Your task to perform on an android device: Clear the shopping cart on target. Search for "razer kraken" on target, select the first entry, add it to the cart, then select checkout. Image 0: 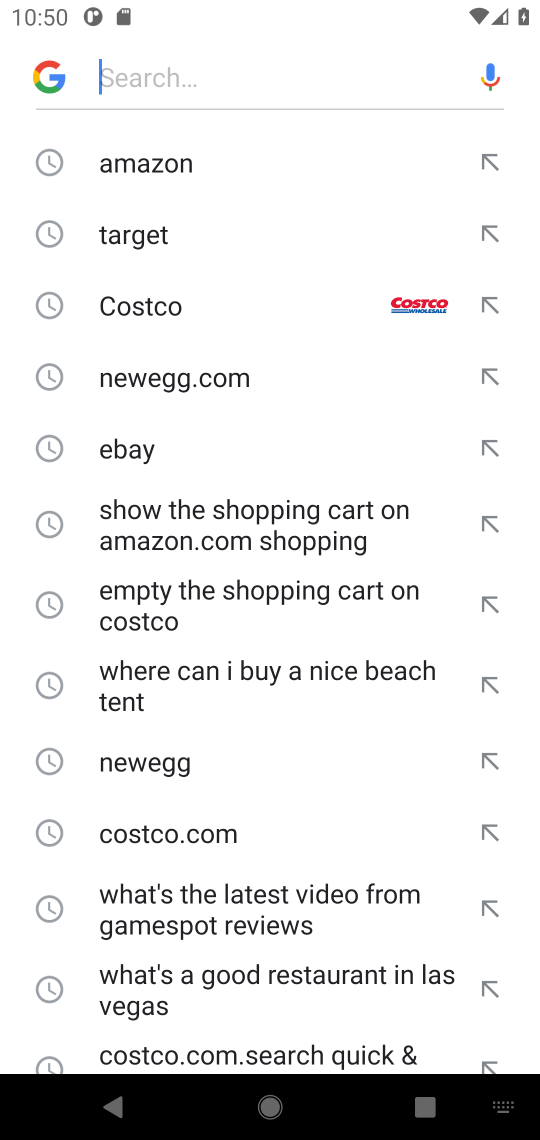
Step 0: click (138, 249)
Your task to perform on an android device: Clear the shopping cart on target. Search for "razer kraken" on target, select the first entry, add it to the cart, then select checkout. Image 1: 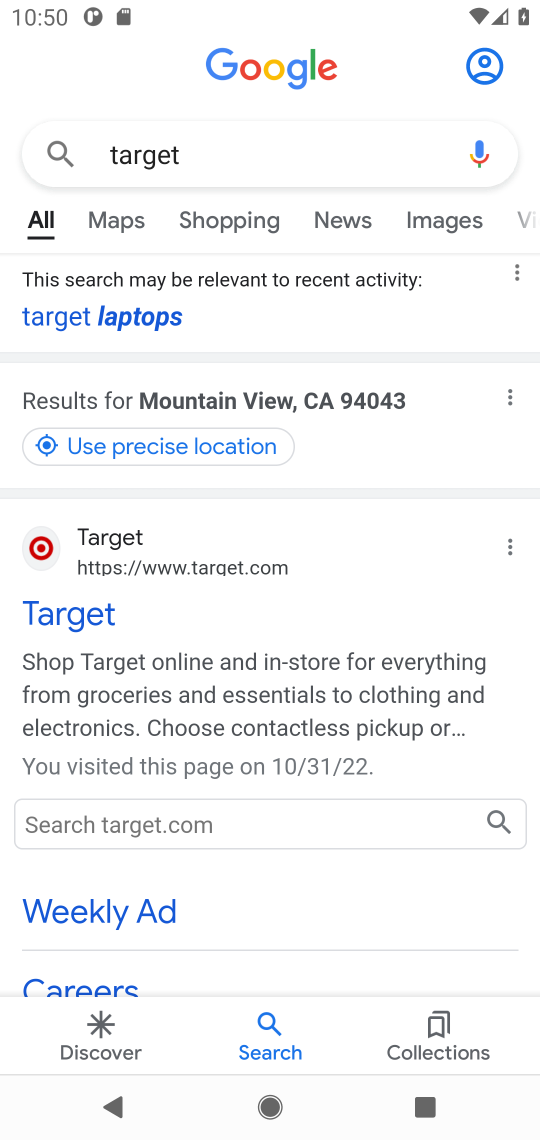
Step 1: click (98, 582)
Your task to perform on an android device: Clear the shopping cart on target. Search for "razer kraken" on target, select the first entry, add it to the cart, then select checkout. Image 2: 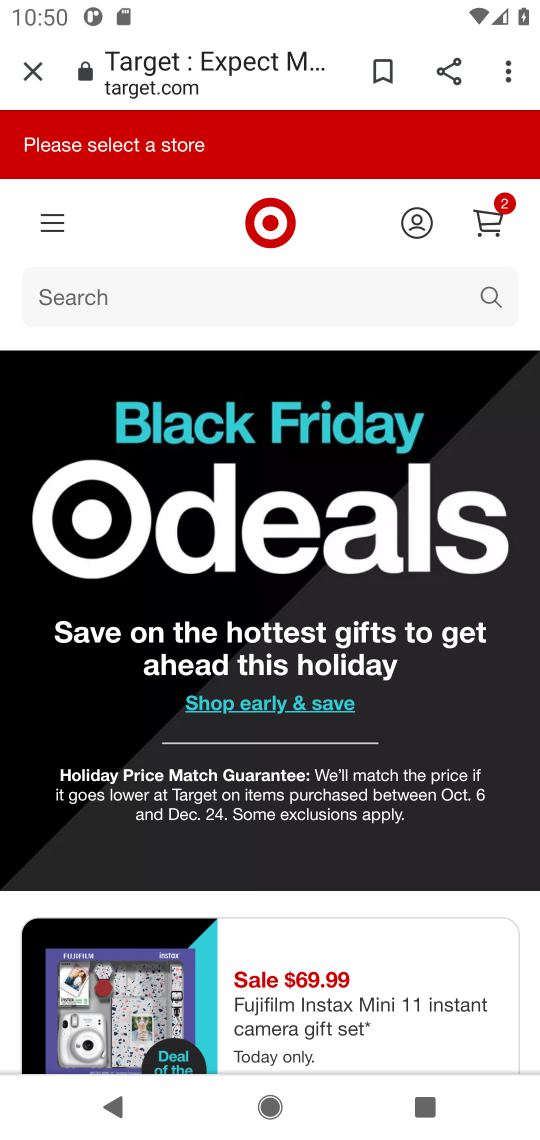
Step 2: click (488, 297)
Your task to perform on an android device: Clear the shopping cart on target. Search for "razer kraken" on target, select the first entry, add it to the cart, then select checkout. Image 3: 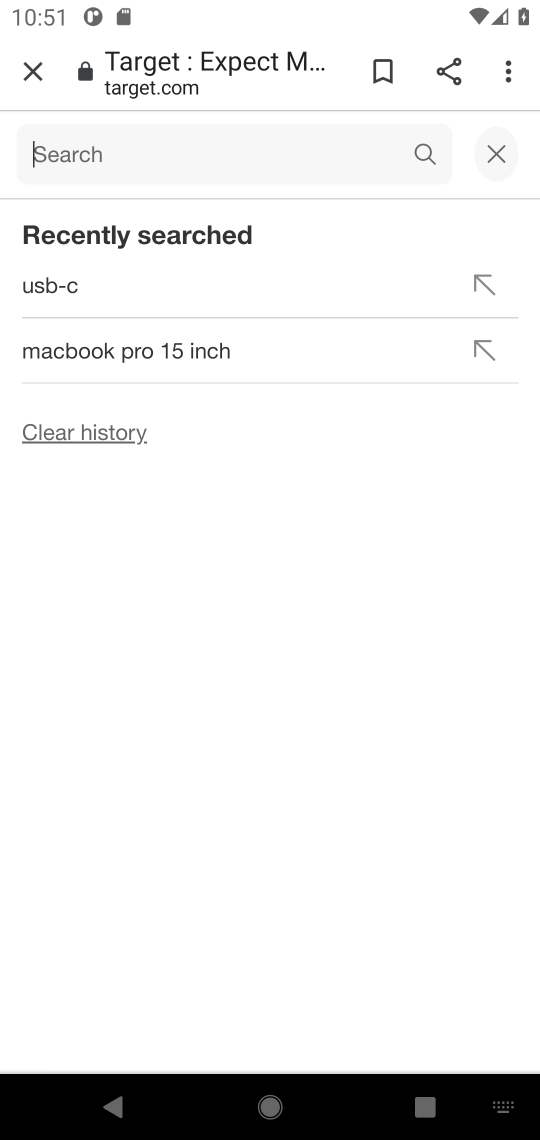
Step 3: press back button
Your task to perform on an android device: Clear the shopping cart on target. Search for "razer kraken" on target, select the first entry, add it to the cart, then select checkout. Image 4: 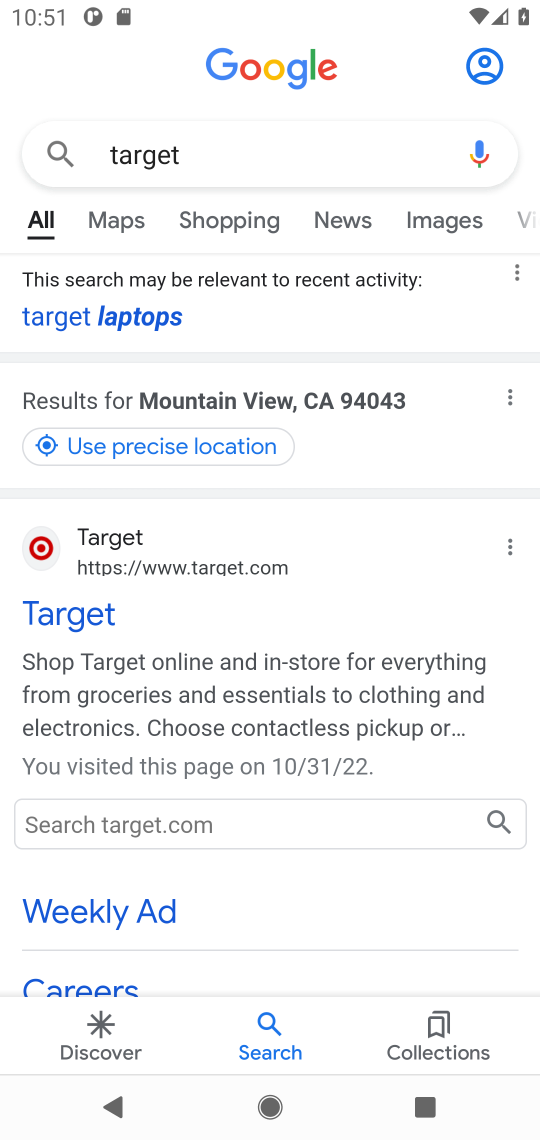
Step 4: click (118, 555)
Your task to perform on an android device: Clear the shopping cart on target. Search for "razer kraken" on target, select the first entry, add it to the cart, then select checkout. Image 5: 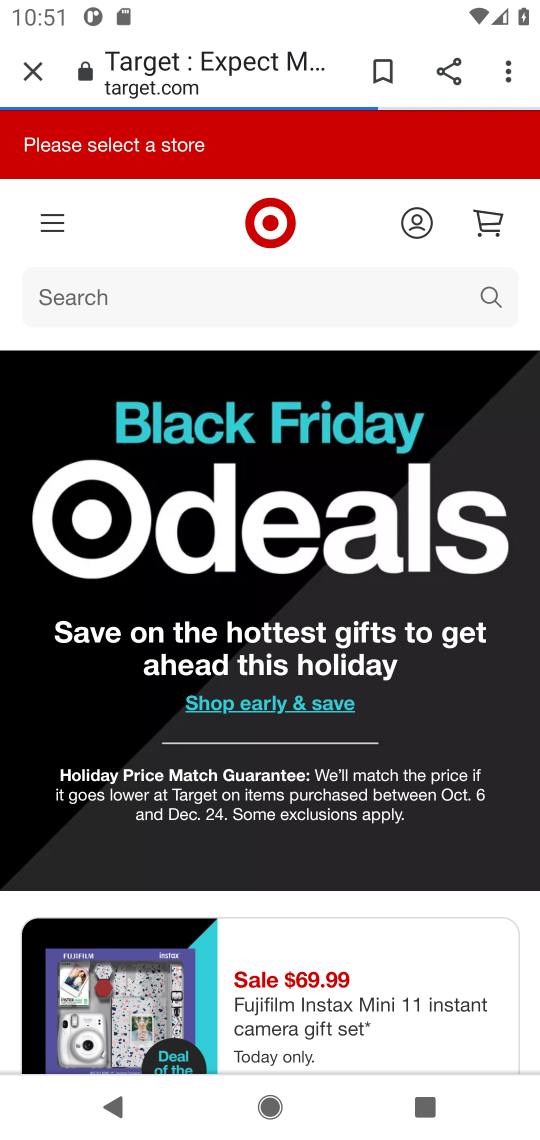
Step 5: click (487, 222)
Your task to perform on an android device: Clear the shopping cart on target. Search for "razer kraken" on target, select the first entry, add it to the cart, then select checkout. Image 6: 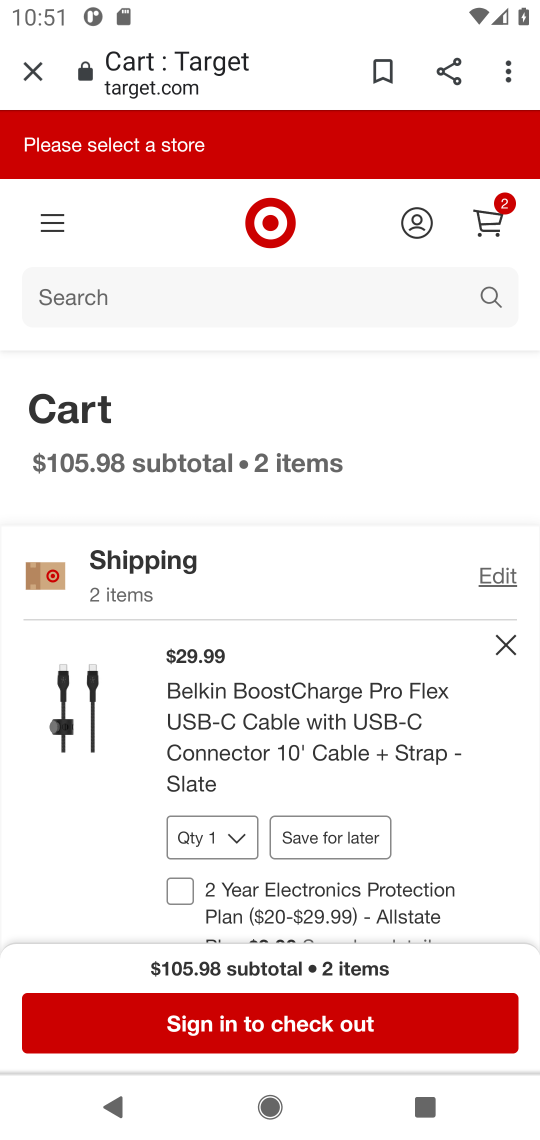
Step 6: drag from (253, 682) to (272, 481)
Your task to perform on an android device: Clear the shopping cart on target. Search for "razer kraken" on target, select the first entry, add it to the cart, then select checkout. Image 7: 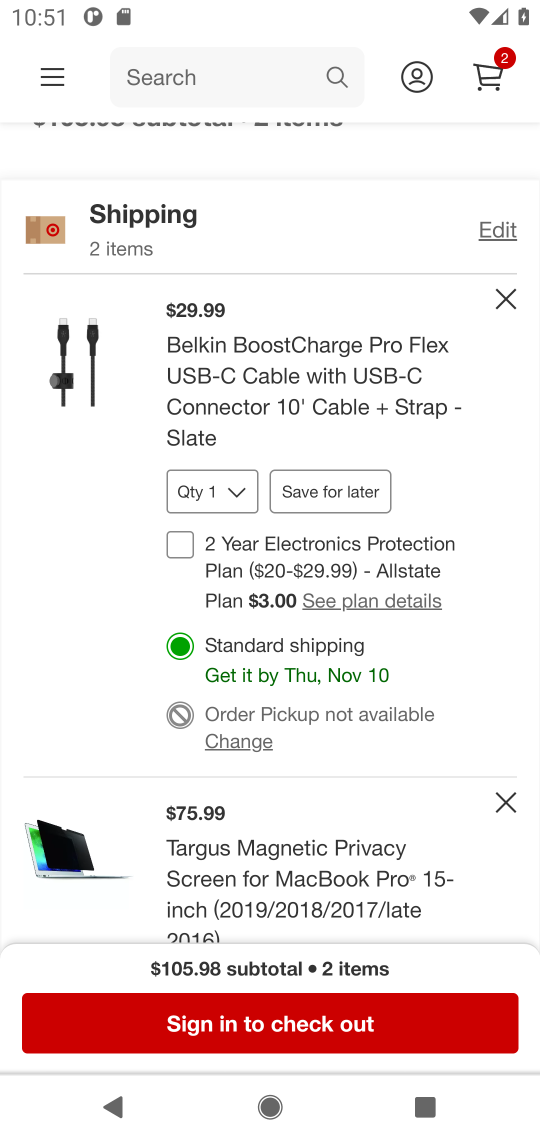
Step 7: click (508, 307)
Your task to perform on an android device: Clear the shopping cart on target. Search for "razer kraken" on target, select the first entry, add it to the cart, then select checkout. Image 8: 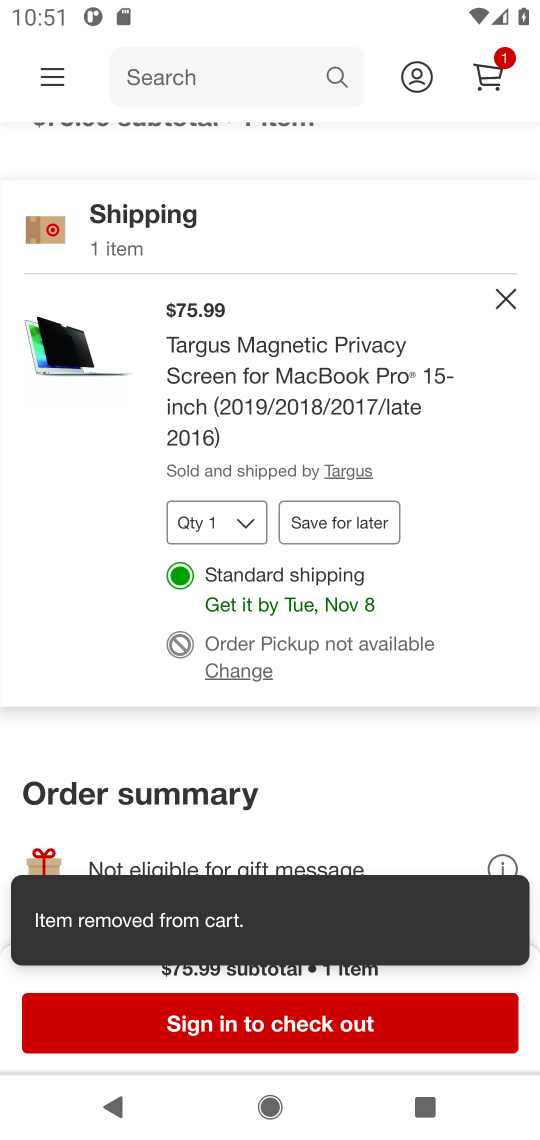
Step 8: click (508, 307)
Your task to perform on an android device: Clear the shopping cart on target. Search for "razer kraken" on target, select the first entry, add it to the cart, then select checkout. Image 9: 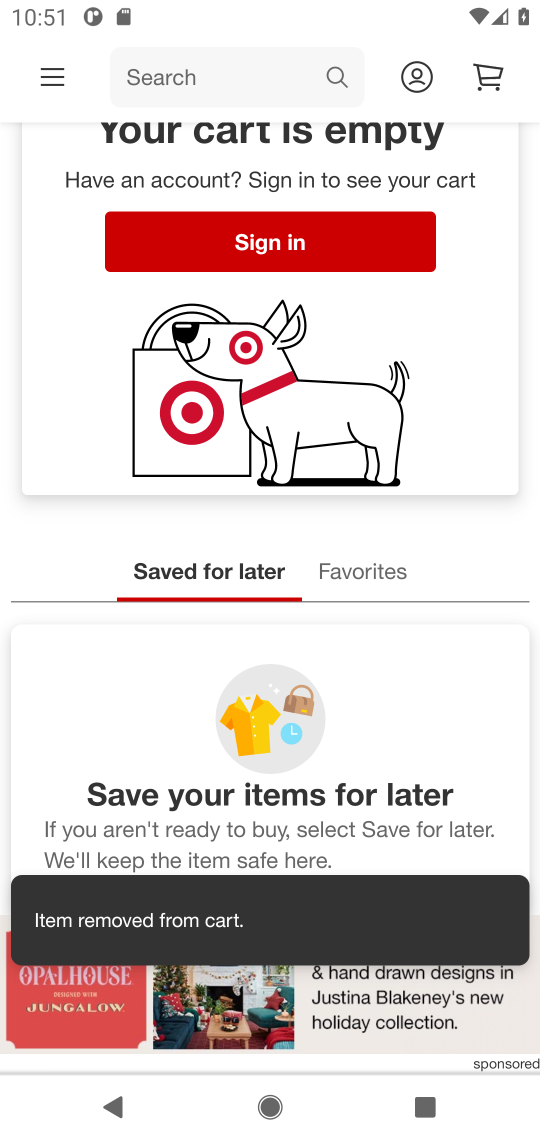
Step 9: drag from (486, 338) to (495, 684)
Your task to perform on an android device: Clear the shopping cart on target. Search for "razer kraken" on target, select the first entry, add it to the cart, then select checkout. Image 10: 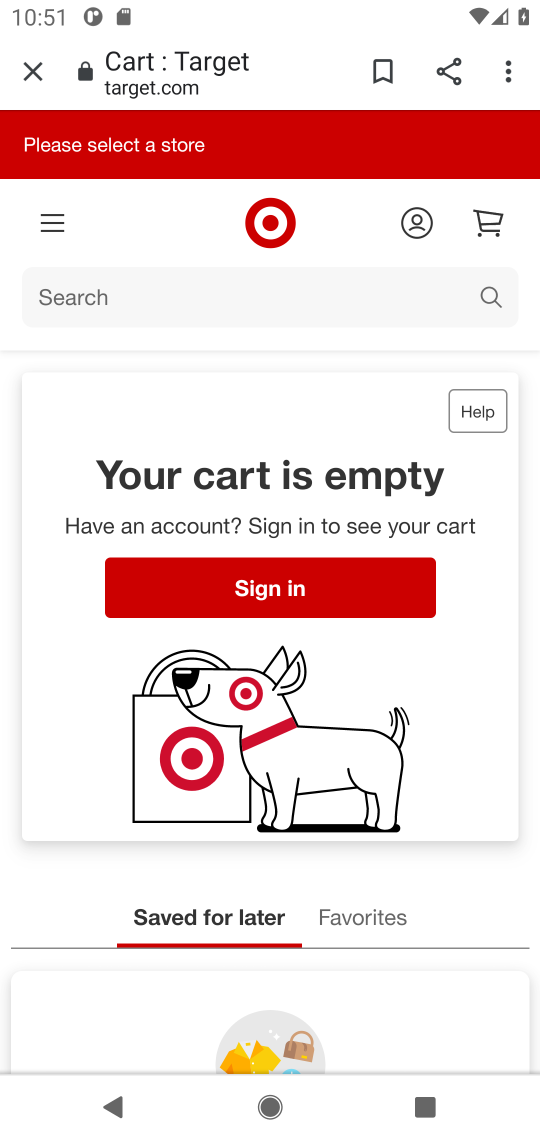
Step 10: click (478, 296)
Your task to perform on an android device: Clear the shopping cart on target. Search for "razer kraken" on target, select the first entry, add it to the cart, then select checkout. Image 11: 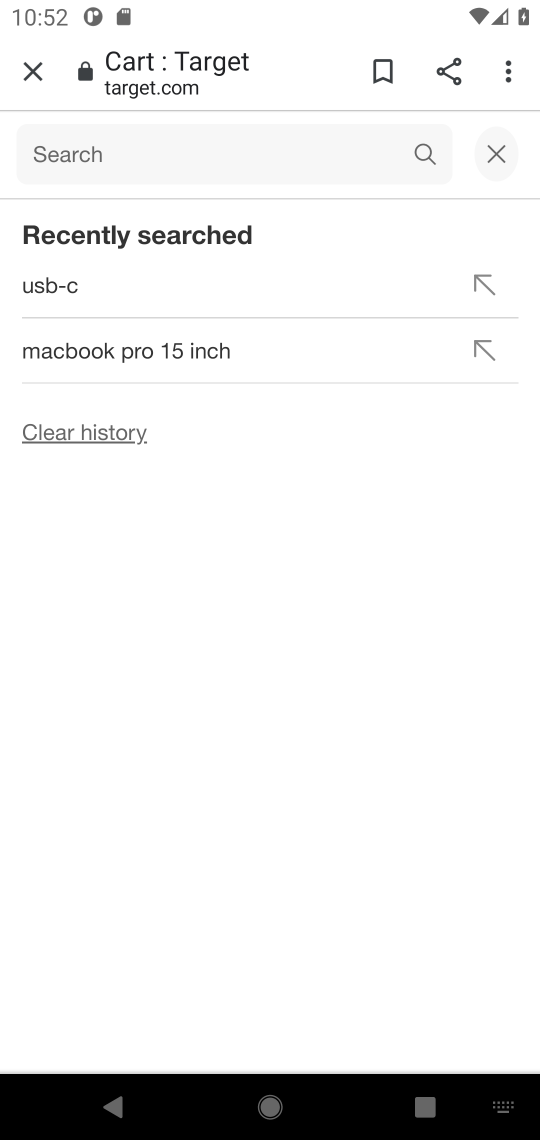
Step 11: type "razer kraken"
Your task to perform on an android device: Clear the shopping cart on target. Search for "razer kraken" on target, select the first entry, add it to the cart, then select checkout. Image 12: 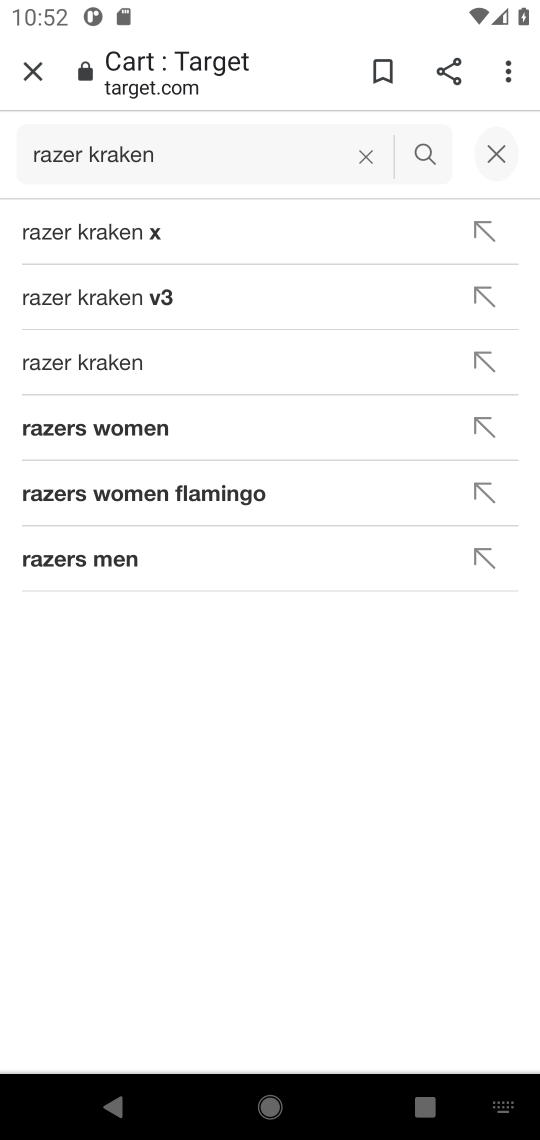
Step 12: click (136, 228)
Your task to perform on an android device: Clear the shopping cart on target. Search for "razer kraken" on target, select the first entry, add it to the cart, then select checkout. Image 13: 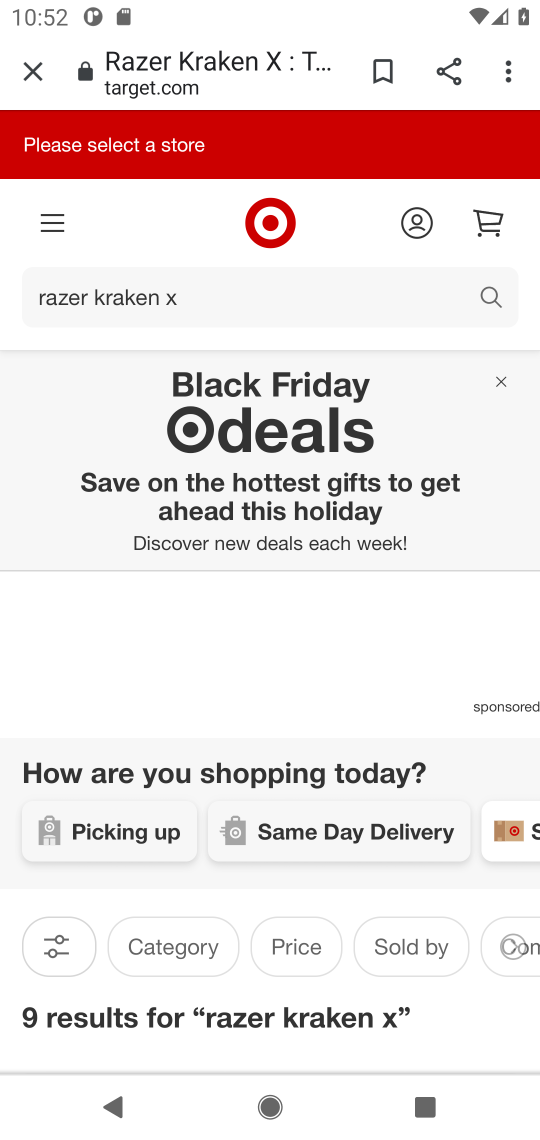
Step 13: drag from (271, 786) to (245, 410)
Your task to perform on an android device: Clear the shopping cart on target. Search for "razer kraken" on target, select the first entry, add it to the cart, then select checkout. Image 14: 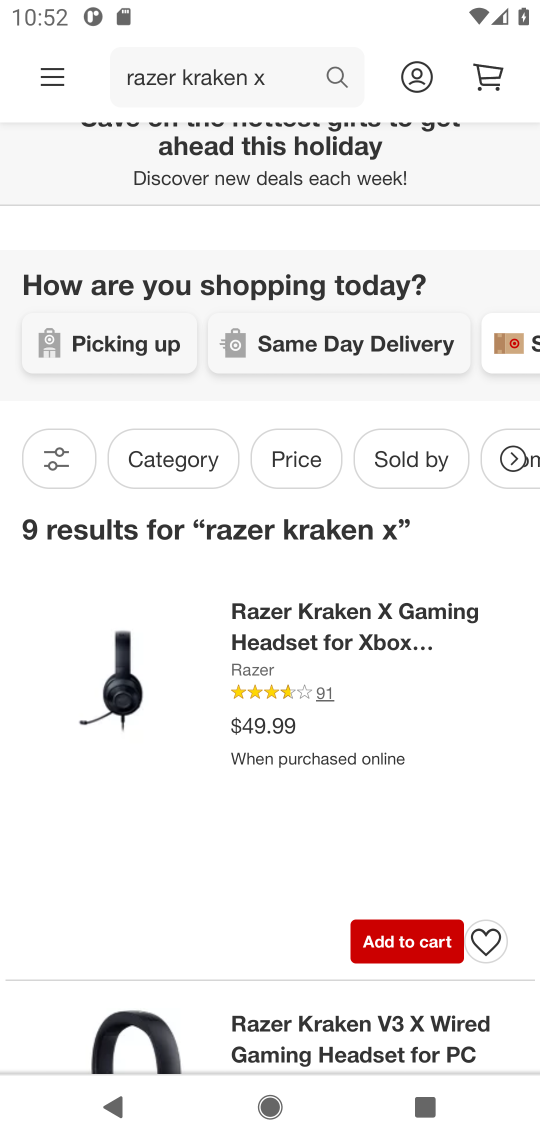
Step 14: click (269, 678)
Your task to perform on an android device: Clear the shopping cart on target. Search for "razer kraken" on target, select the first entry, add it to the cart, then select checkout. Image 15: 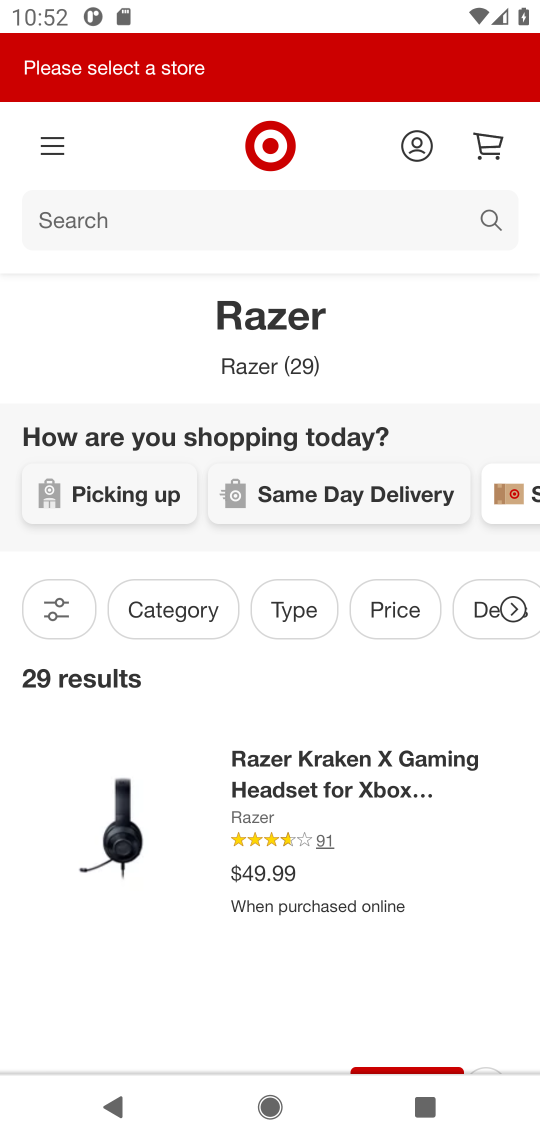
Step 15: drag from (194, 835) to (202, 503)
Your task to perform on an android device: Clear the shopping cart on target. Search for "razer kraken" on target, select the first entry, add it to the cart, then select checkout. Image 16: 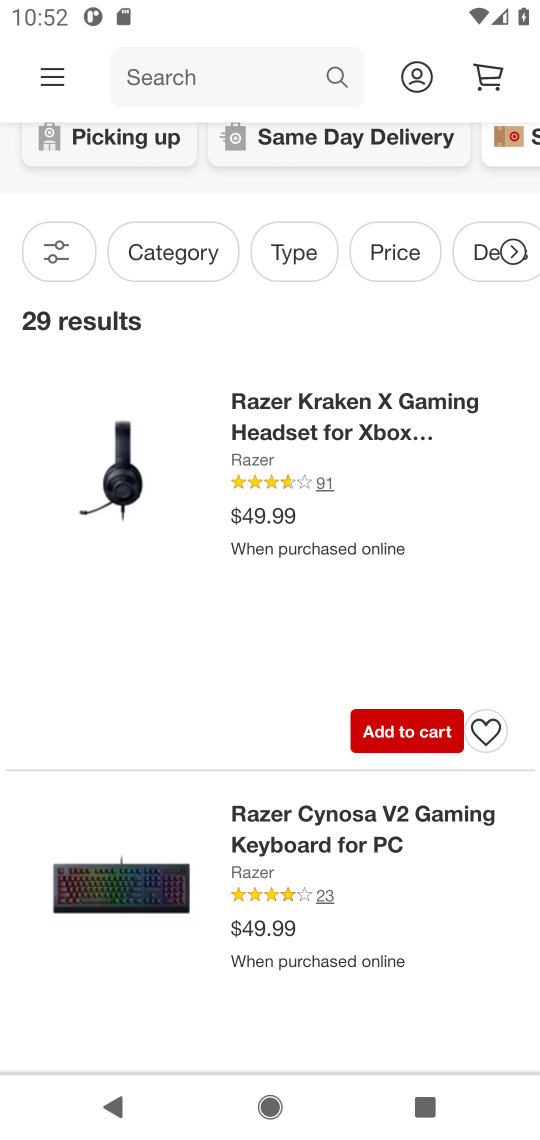
Step 16: click (389, 724)
Your task to perform on an android device: Clear the shopping cart on target. Search for "razer kraken" on target, select the first entry, add it to the cart, then select checkout. Image 17: 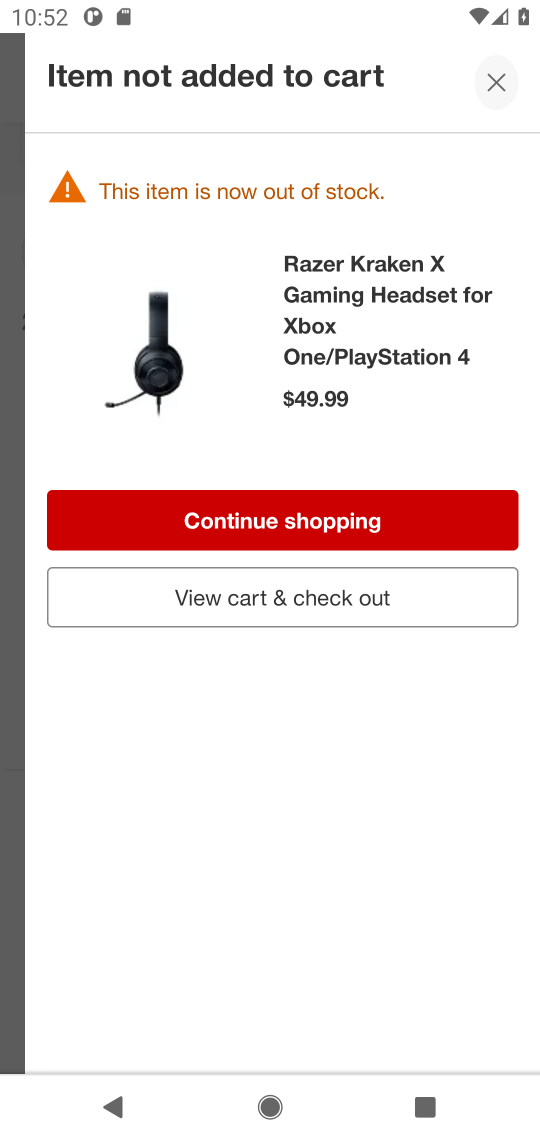
Step 17: click (251, 584)
Your task to perform on an android device: Clear the shopping cart on target. Search for "razer kraken" on target, select the first entry, add it to the cart, then select checkout. Image 18: 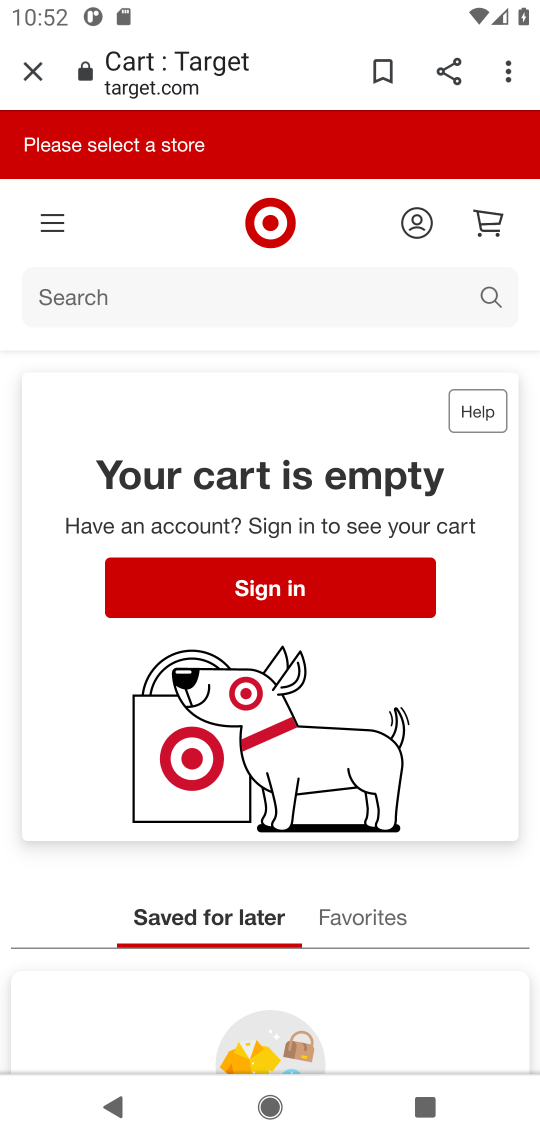
Step 18: click (267, 697)
Your task to perform on an android device: Clear the shopping cart on target. Search for "razer kraken" on target, select the first entry, add it to the cart, then select checkout. Image 19: 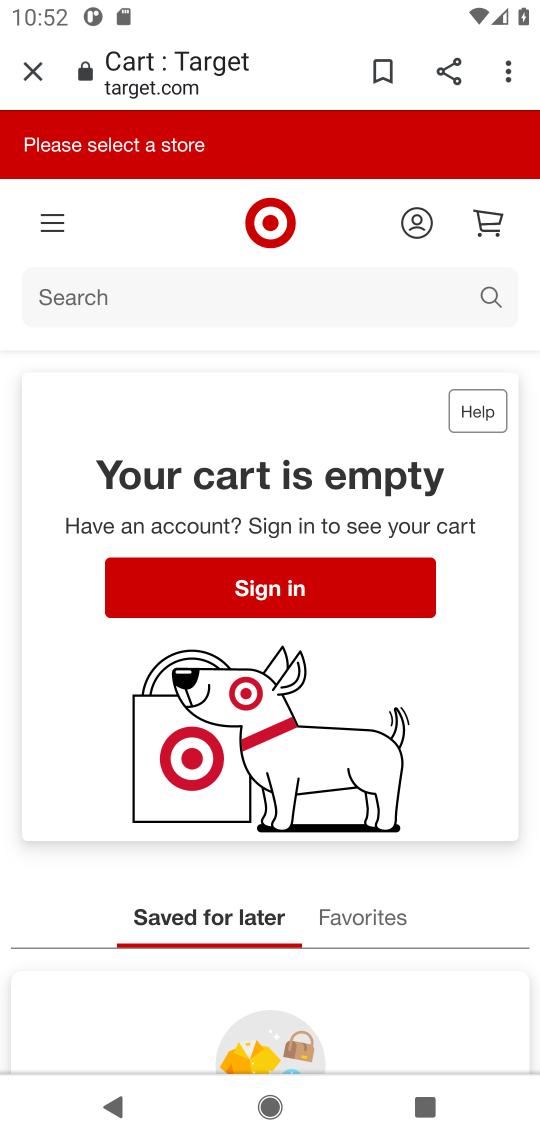
Step 19: click (187, 299)
Your task to perform on an android device: Clear the shopping cart on target. Search for "razer kraken" on target, select the first entry, add it to the cart, then select checkout. Image 20: 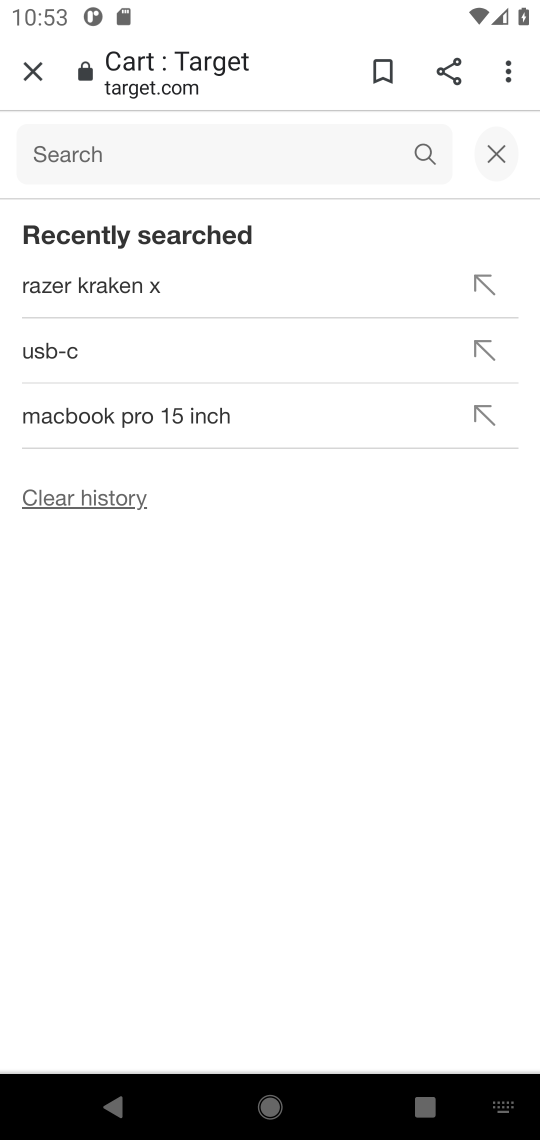
Step 20: click (109, 153)
Your task to perform on an android device: Clear the shopping cart on target. Search for "razer kraken" on target, select the first entry, add it to the cart, then select checkout. Image 21: 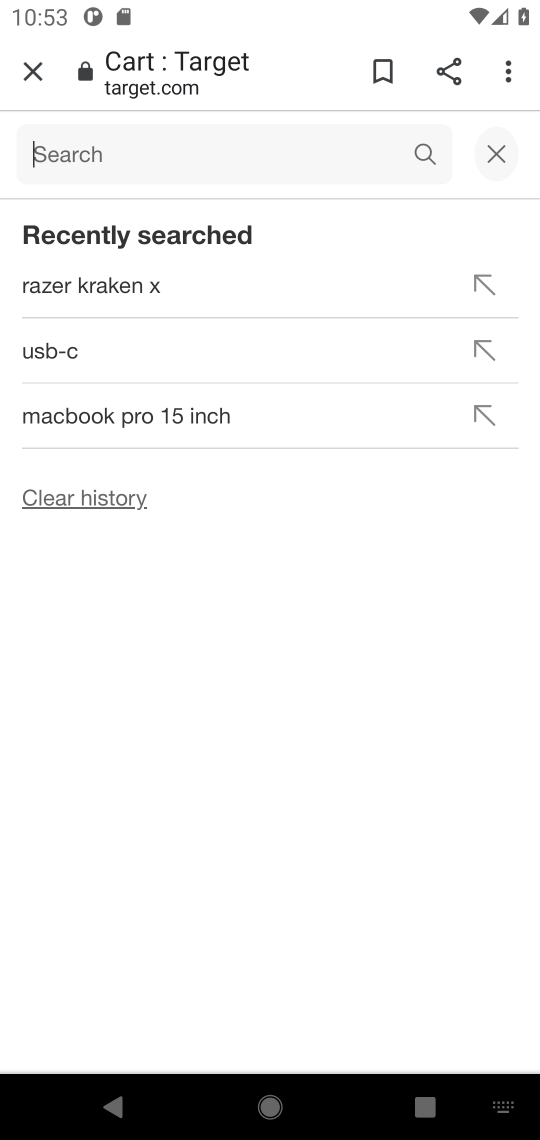
Step 21: type "razer kraken"
Your task to perform on an android device: Clear the shopping cart on target. Search for "razer kraken" on target, select the first entry, add it to the cart, then select checkout. Image 22: 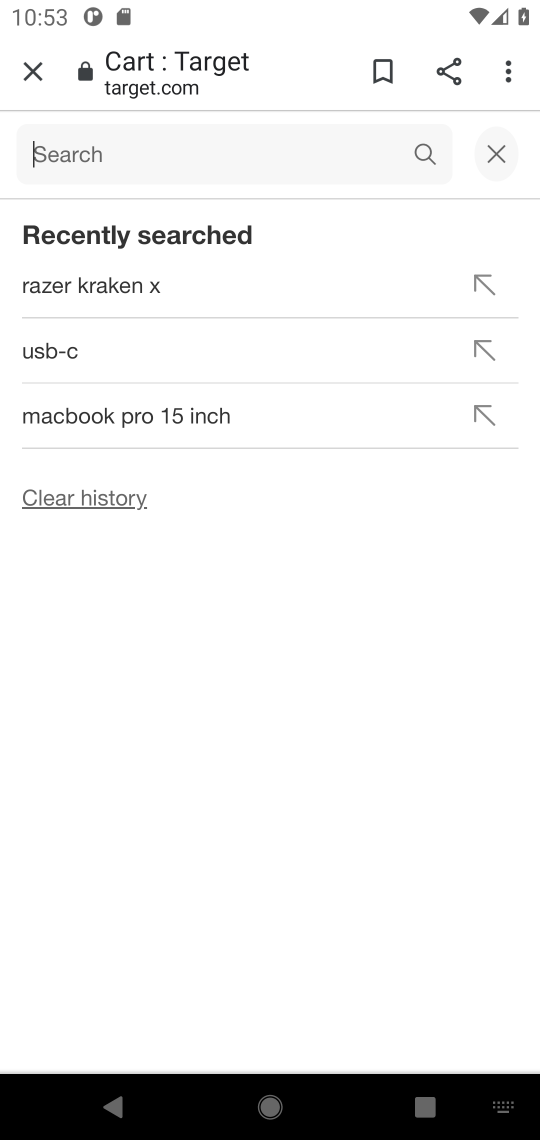
Step 22: click (79, 160)
Your task to perform on an android device: Clear the shopping cart on target. Search for "razer kraken" on target, select the first entry, add it to the cart, then select checkout. Image 23: 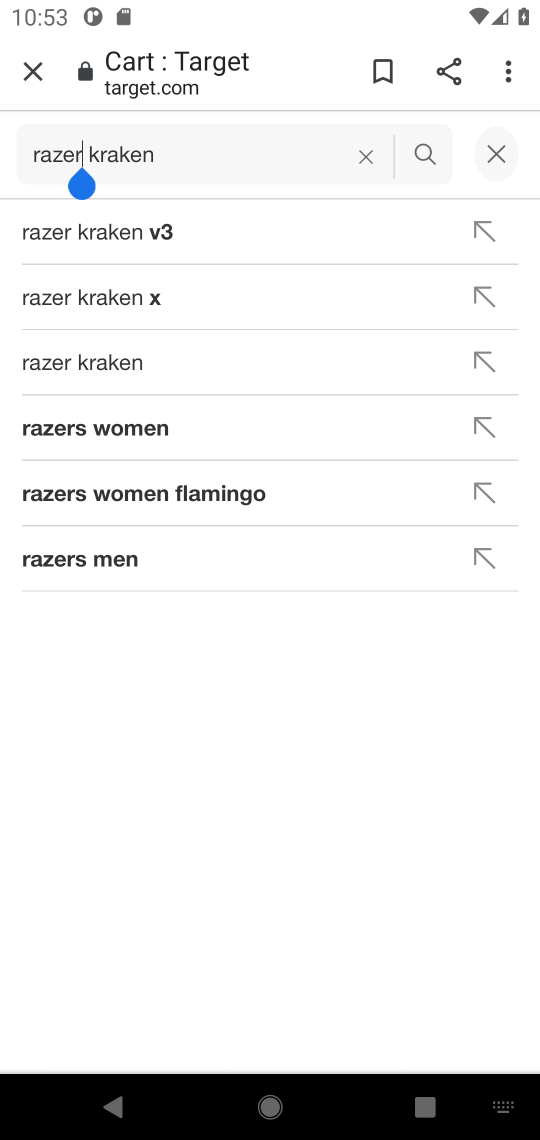
Step 23: click (414, 152)
Your task to perform on an android device: Clear the shopping cart on target. Search for "razer kraken" on target, select the first entry, add it to the cart, then select checkout. Image 24: 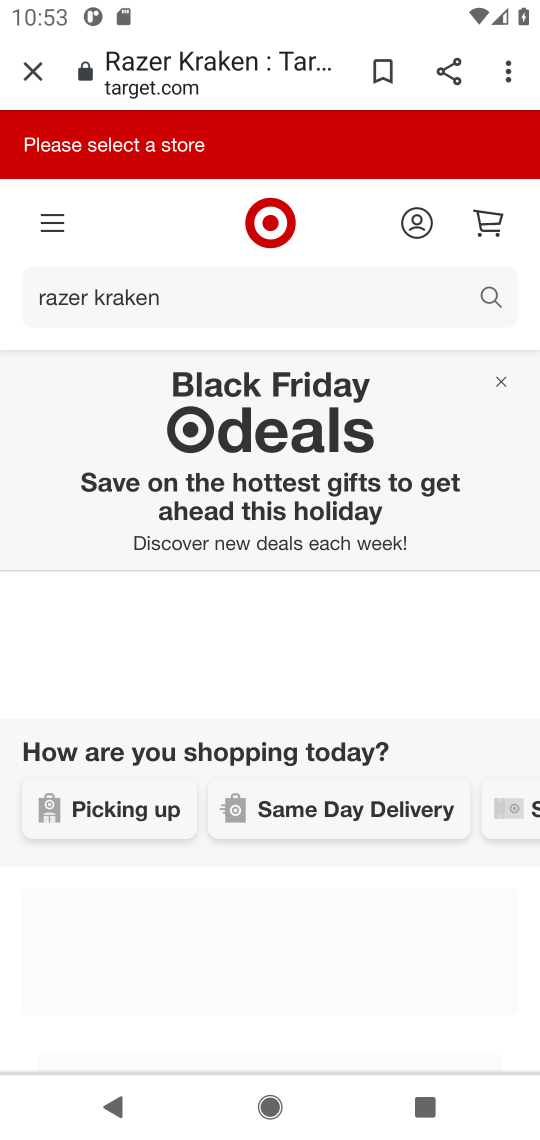
Step 24: drag from (234, 751) to (264, 273)
Your task to perform on an android device: Clear the shopping cart on target. Search for "razer kraken" on target, select the first entry, add it to the cart, then select checkout. Image 25: 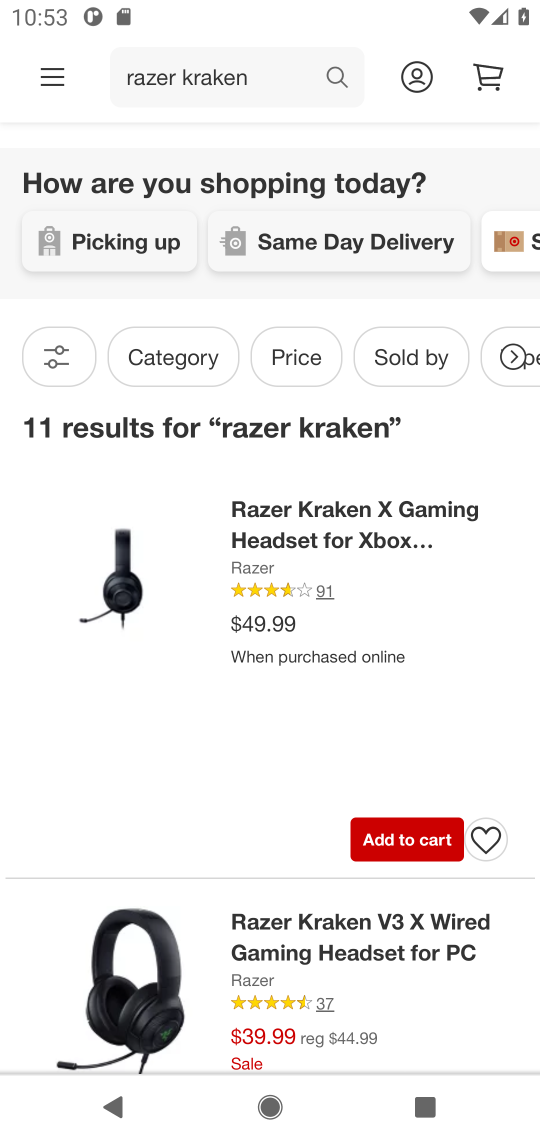
Step 25: drag from (224, 720) to (286, 527)
Your task to perform on an android device: Clear the shopping cart on target. Search for "razer kraken" on target, select the first entry, add it to the cart, then select checkout. Image 26: 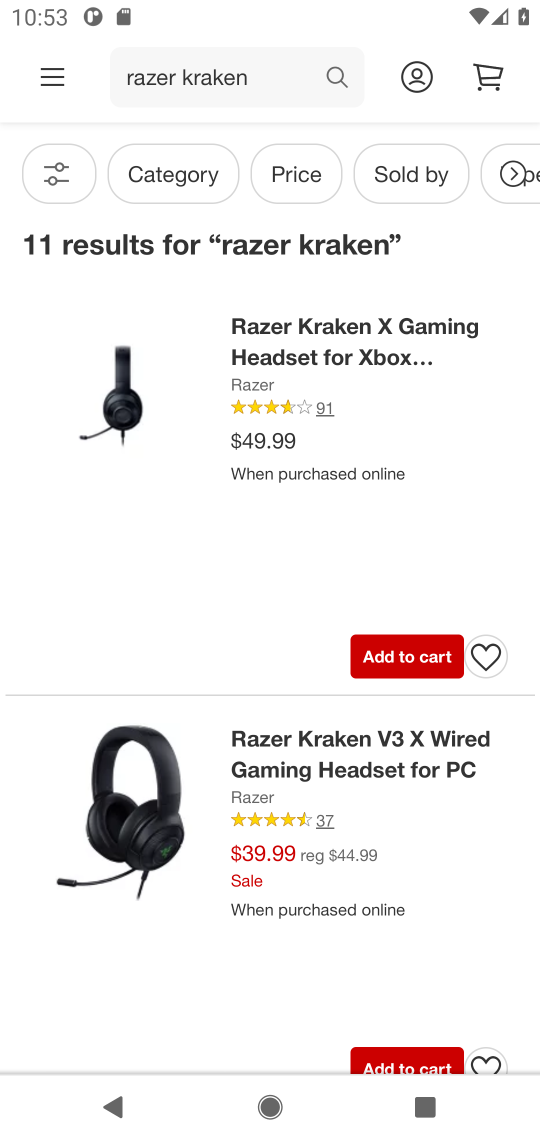
Step 26: click (398, 658)
Your task to perform on an android device: Clear the shopping cart on target. Search for "razer kraken" on target, select the first entry, add it to the cart, then select checkout. Image 27: 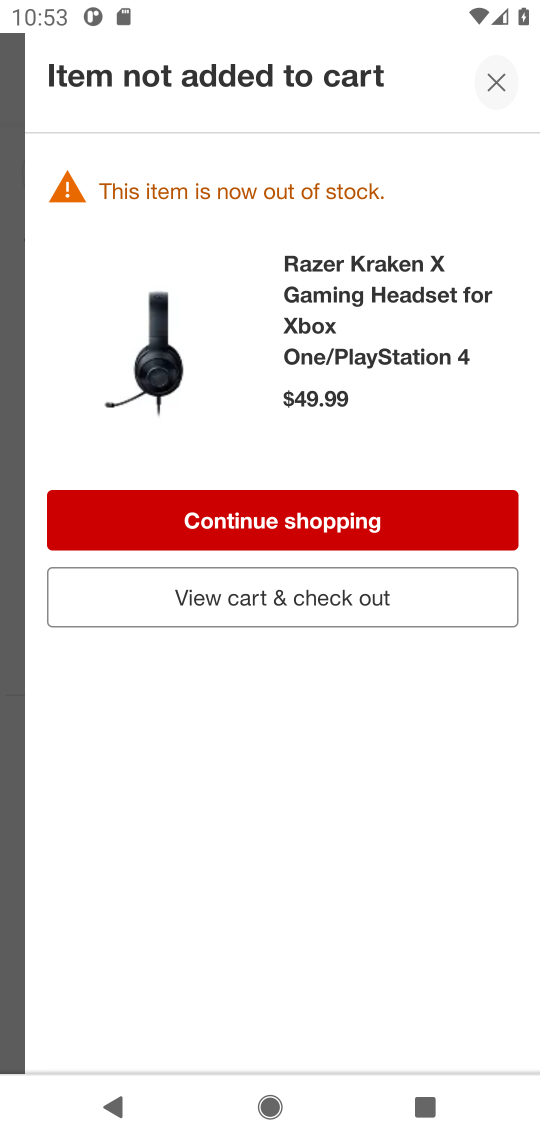
Step 27: click (503, 81)
Your task to perform on an android device: Clear the shopping cart on target. Search for "razer kraken" on target, select the first entry, add it to the cart, then select checkout. Image 28: 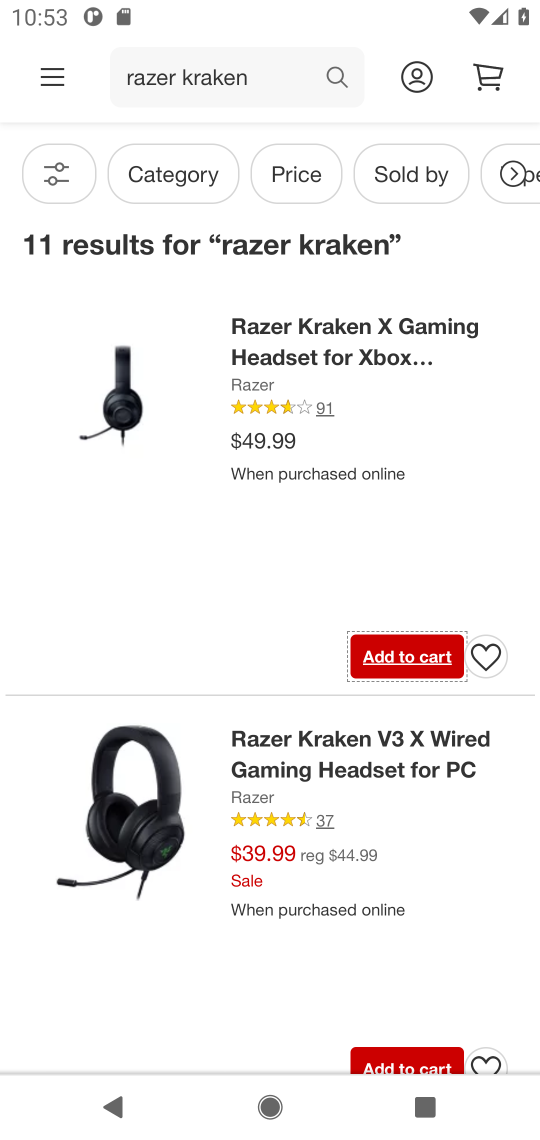
Step 28: drag from (304, 635) to (297, 346)
Your task to perform on an android device: Clear the shopping cart on target. Search for "razer kraken" on target, select the first entry, add it to the cart, then select checkout. Image 29: 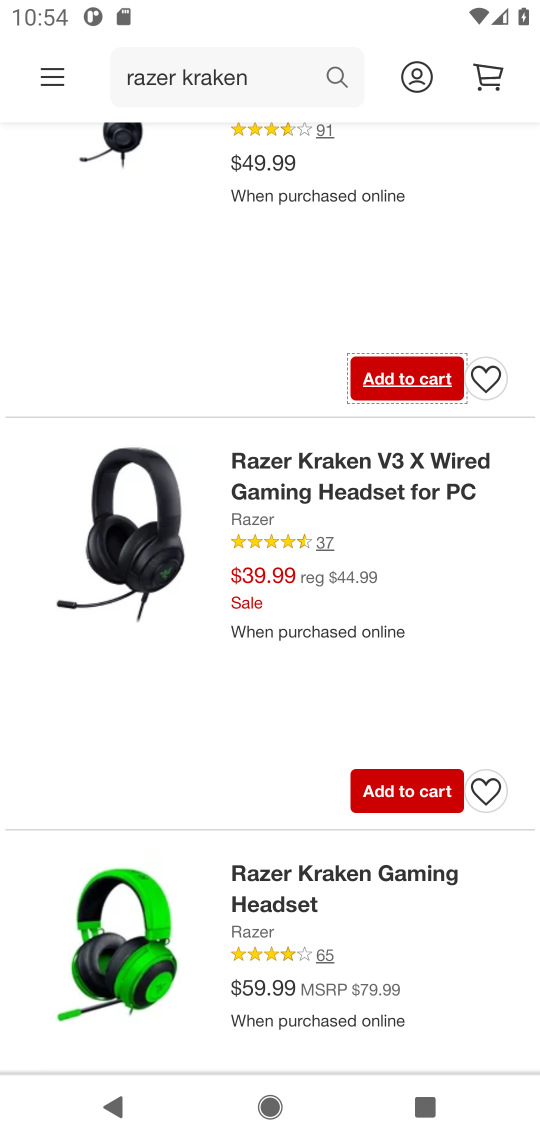
Step 29: click (382, 793)
Your task to perform on an android device: Clear the shopping cart on target. Search for "razer kraken" on target, select the first entry, add it to the cart, then select checkout. Image 30: 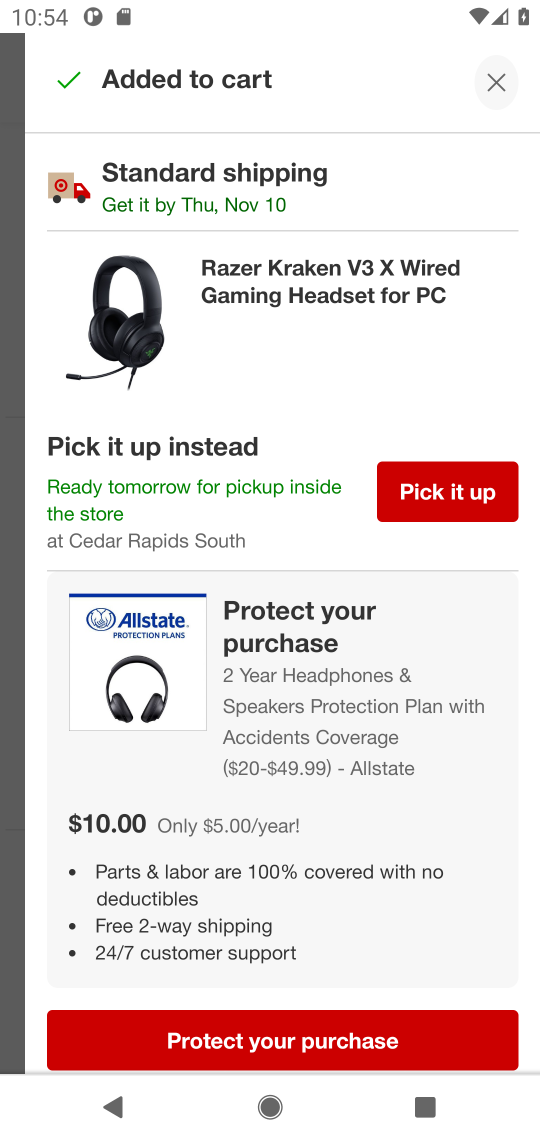
Step 30: task complete